Your task to perform on an android device: Go to Google maps Image 0: 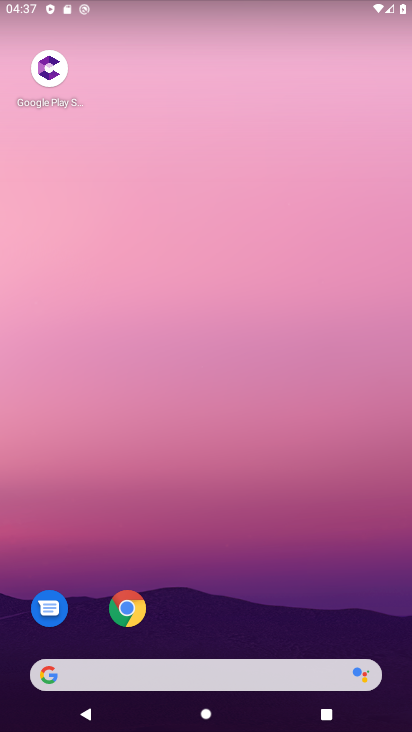
Step 0: drag from (208, 594) to (210, 208)
Your task to perform on an android device: Go to Google maps Image 1: 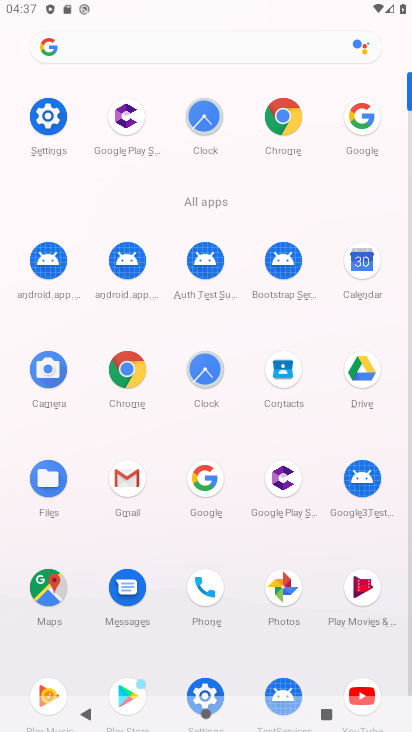
Step 1: click (40, 581)
Your task to perform on an android device: Go to Google maps Image 2: 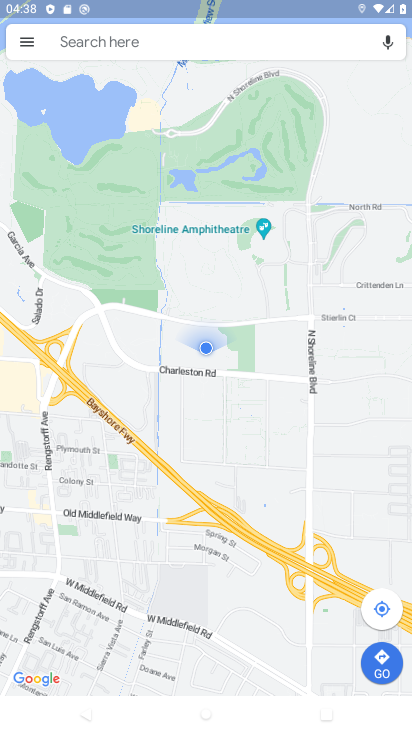
Step 2: task complete